Your task to perform on an android device: visit the assistant section in the google photos Image 0: 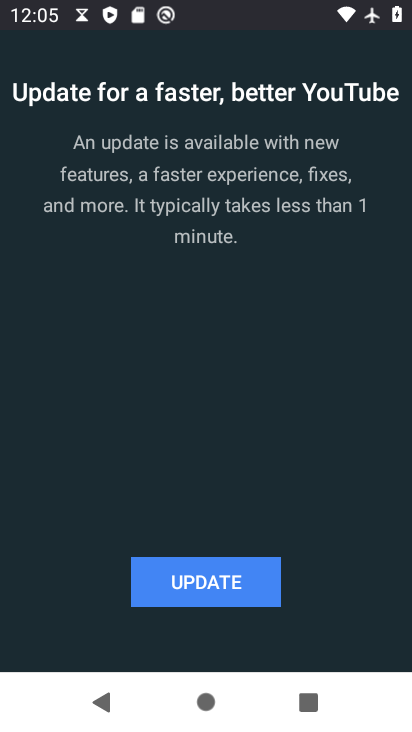
Step 0: press home button
Your task to perform on an android device: visit the assistant section in the google photos Image 1: 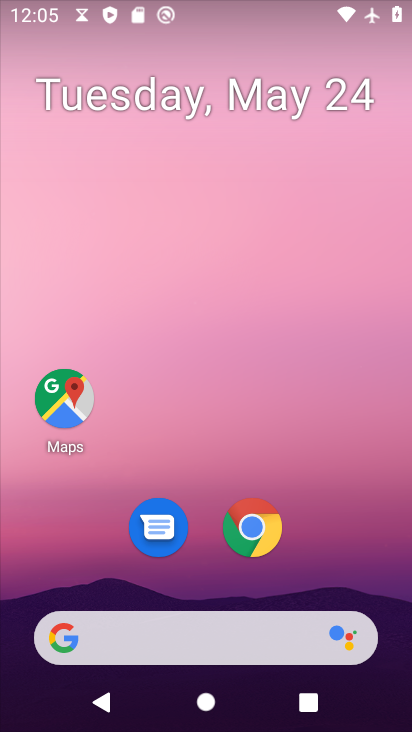
Step 1: drag from (141, 628) to (332, 110)
Your task to perform on an android device: visit the assistant section in the google photos Image 2: 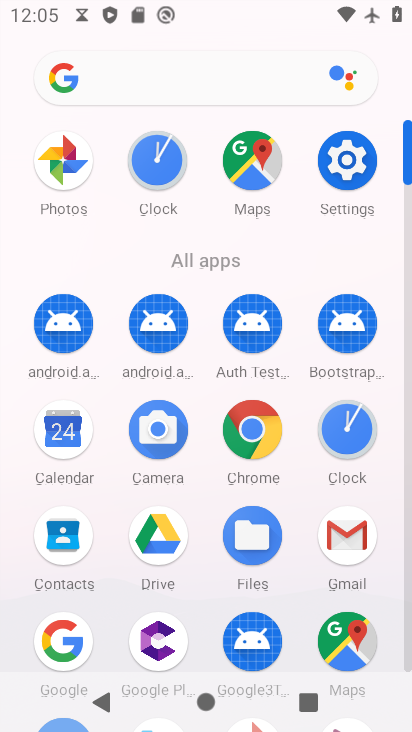
Step 2: click (63, 176)
Your task to perform on an android device: visit the assistant section in the google photos Image 3: 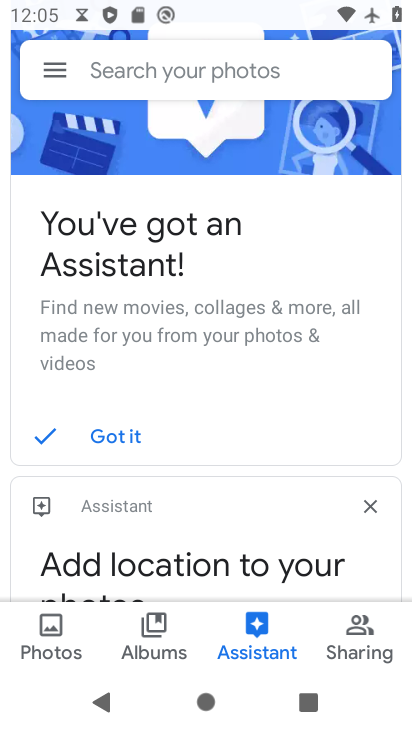
Step 3: task complete